Your task to perform on an android device: check storage Image 0: 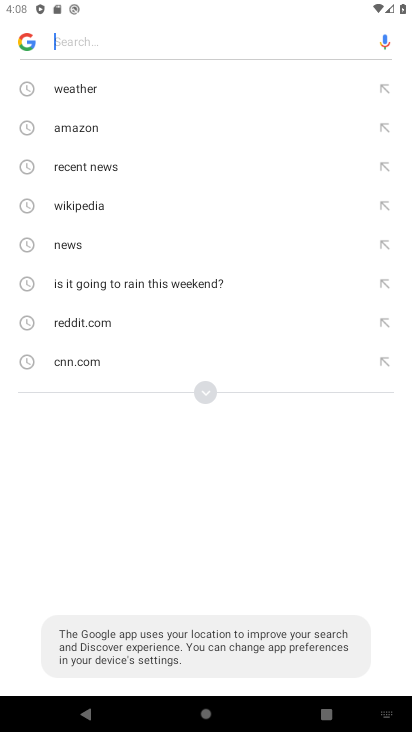
Step 0: press home button
Your task to perform on an android device: check storage Image 1: 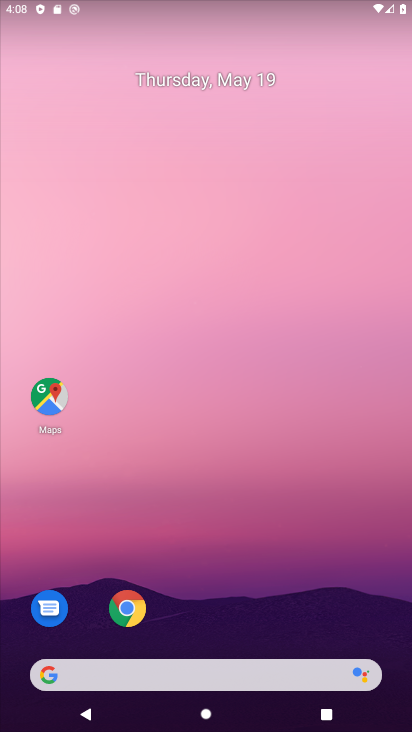
Step 1: drag from (254, 413) to (246, 136)
Your task to perform on an android device: check storage Image 2: 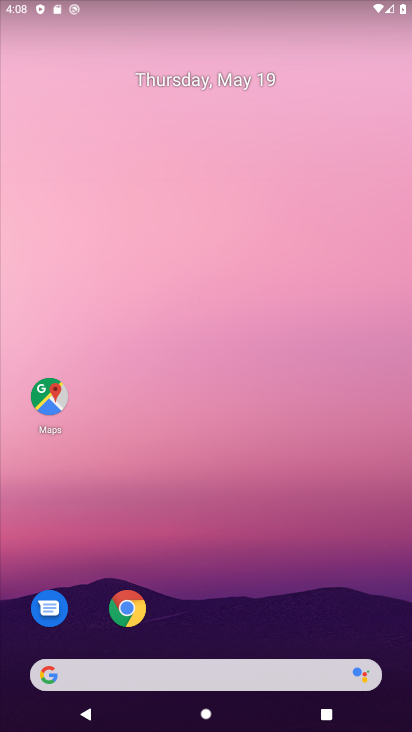
Step 2: drag from (235, 598) to (308, 73)
Your task to perform on an android device: check storage Image 3: 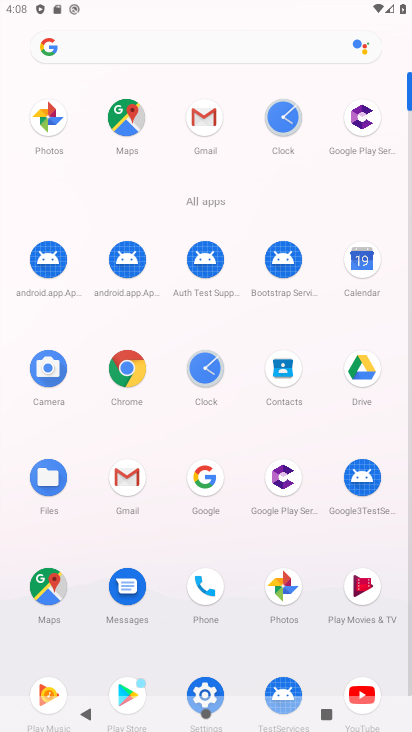
Step 3: click (209, 681)
Your task to perform on an android device: check storage Image 4: 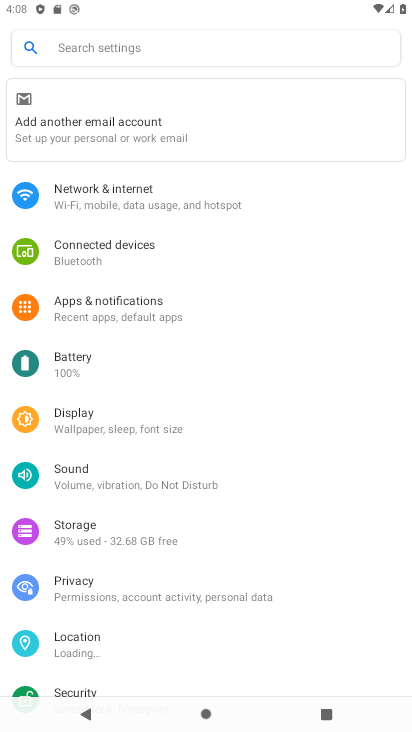
Step 4: drag from (195, 502) to (250, 145)
Your task to perform on an android device: check storage Image 5: 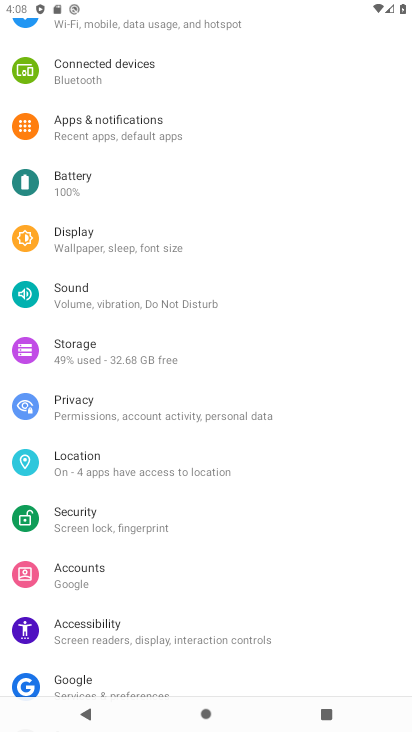
Step 5: click (86, 344)
Your task to perform on an android device: check storage Image 6: 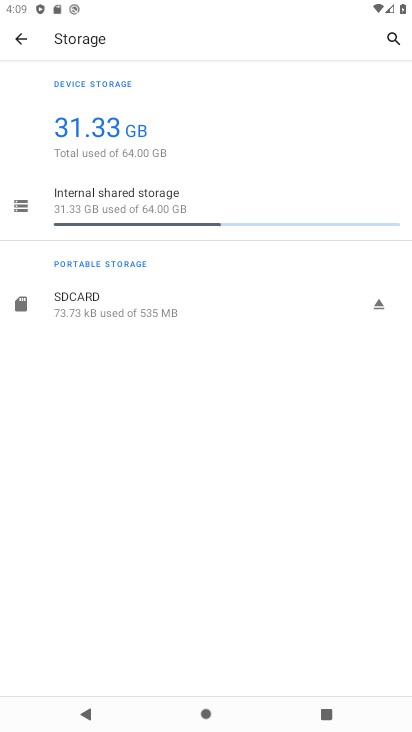
Step 6: task complete